Your task to perform on an android device: see sites visited before in the chrome app Image 0: 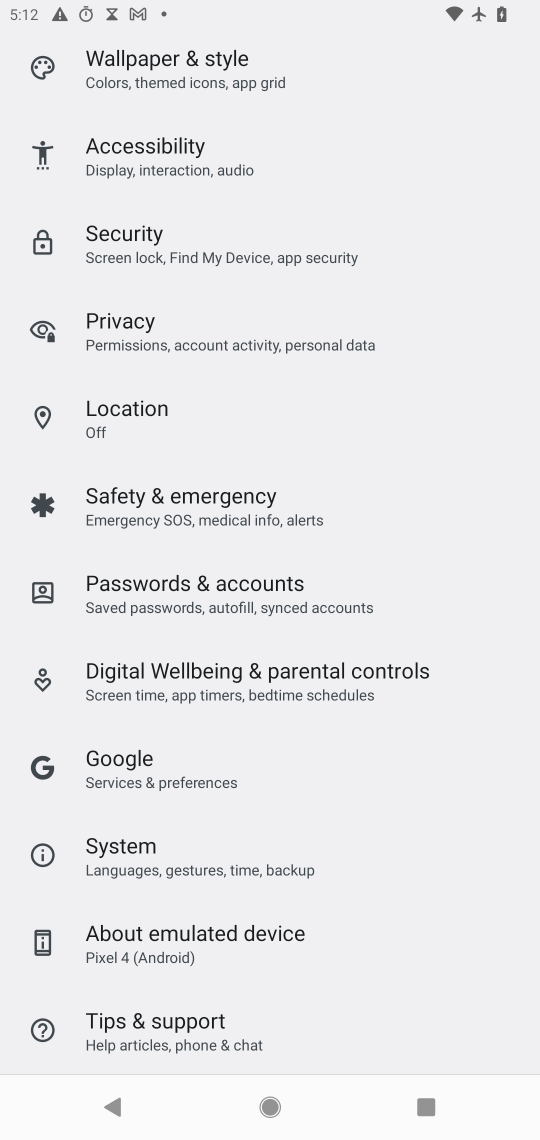
Step 0: press home button
Your task to perform on an android device: see sites visited before in the chrome app Image 1: 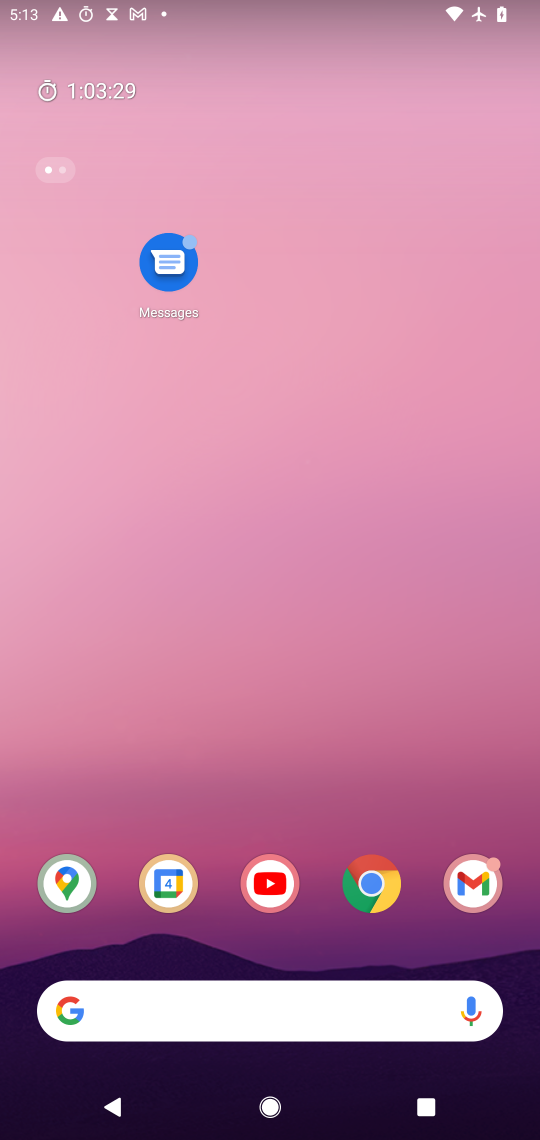
Step 1: drag from (322, 962) to (282, 10)
Your task to perform on an android device: see sites visited before in the chrome app Image 2: 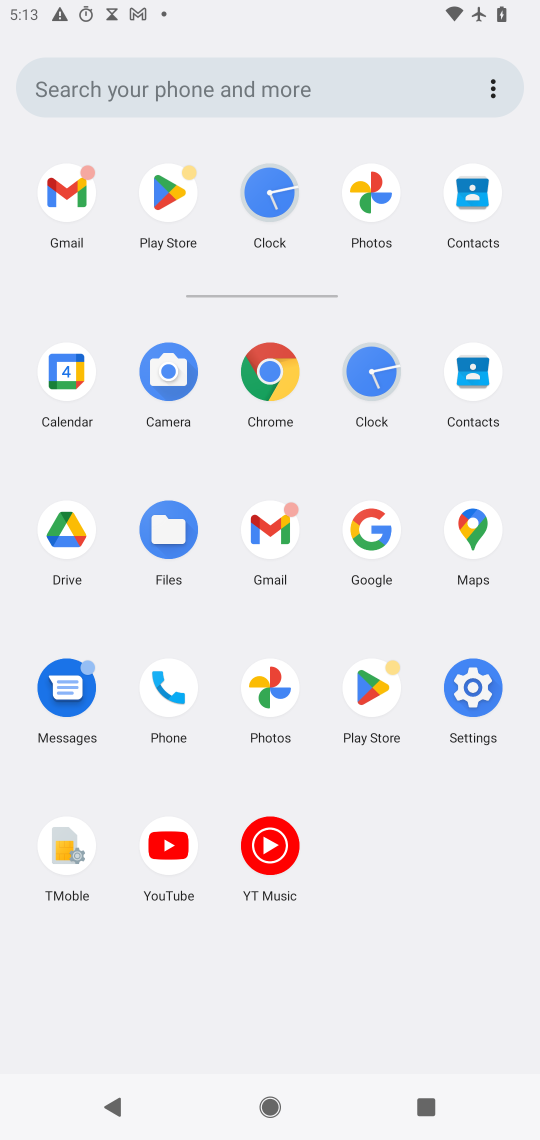
Step 2: click (267, 378)
Your task to perform on an android device: see sites visited before in the chrome app Image 3: 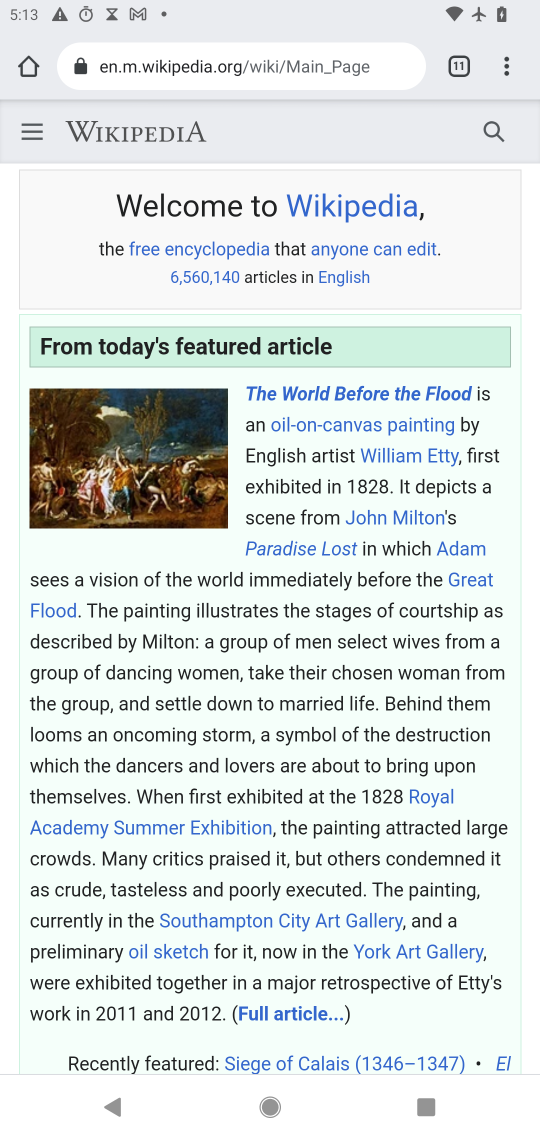
Step 3: click (507, 70)
Your task to perform on an android device: see sites visited before in the chrome app Image 4: 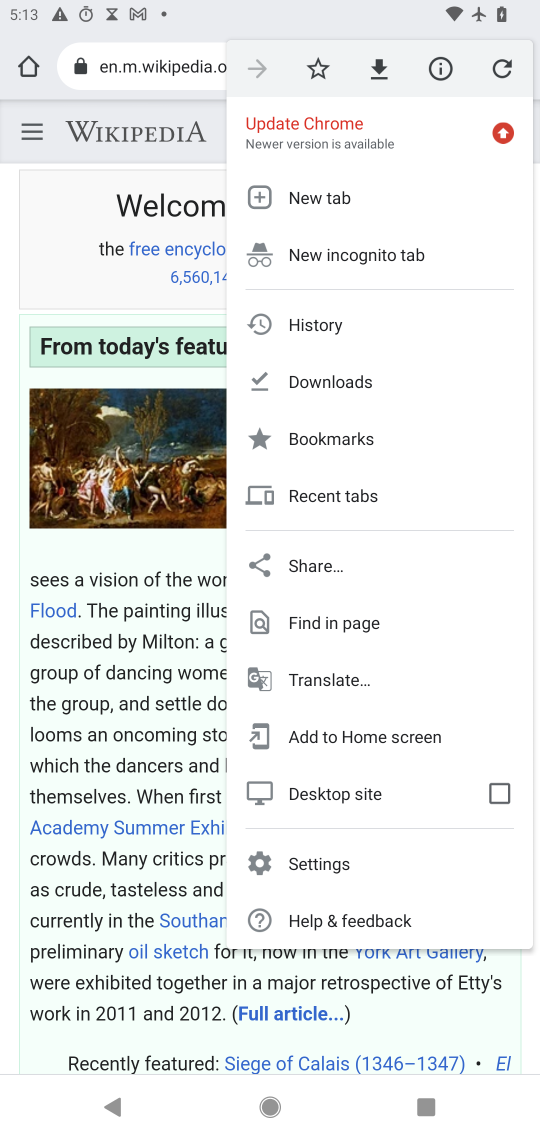
Step 4: click (336, 494)
Your task to perform on an android device: see sites visited before in the chrome app Image 5: 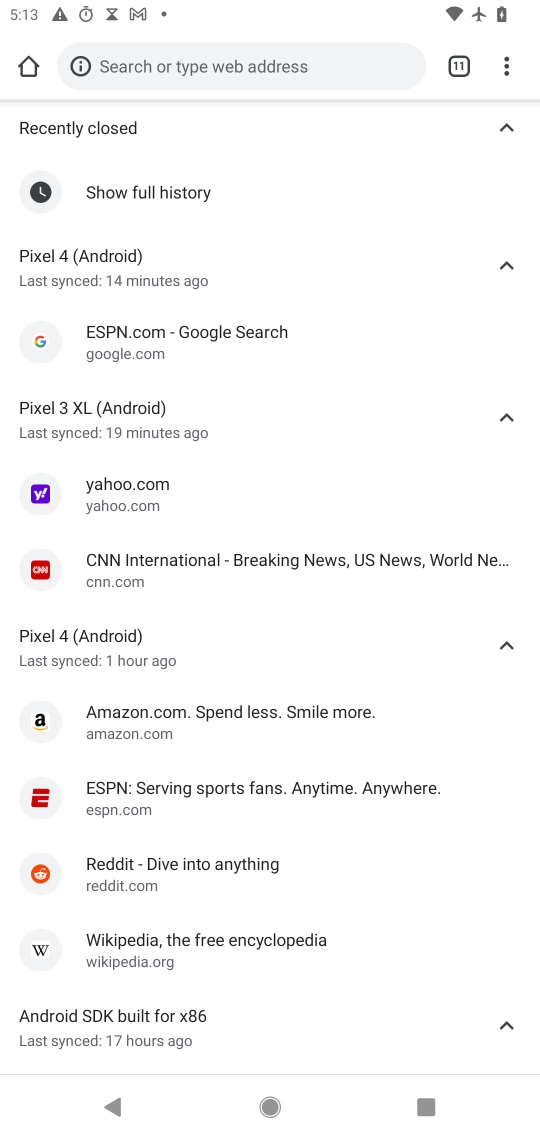
Step 5: task complete